Your task to perform on an android device: Open Google Maps Image 0: 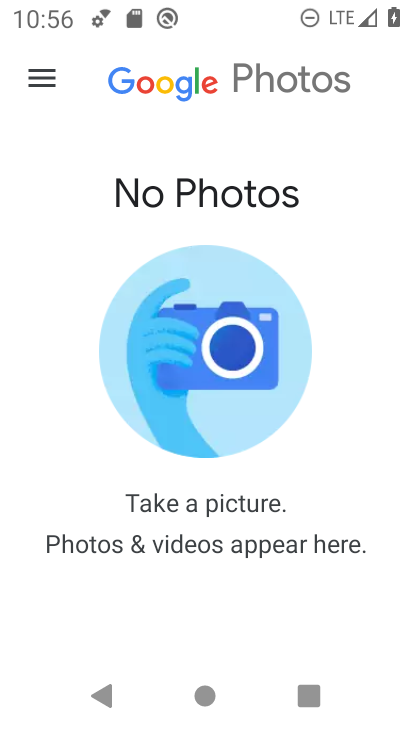
Step 0: press home button
Your task to perform on an android device: Open Google Maps Image 1: 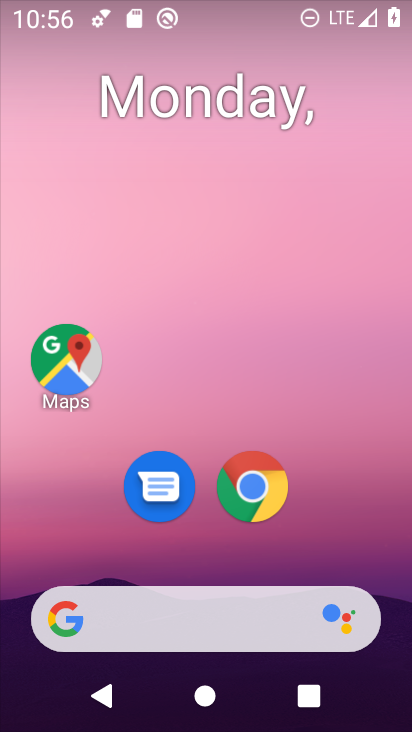
Step 1: click (61, 367)
Your task to perform on an android device: Open Google Maps Image 2: 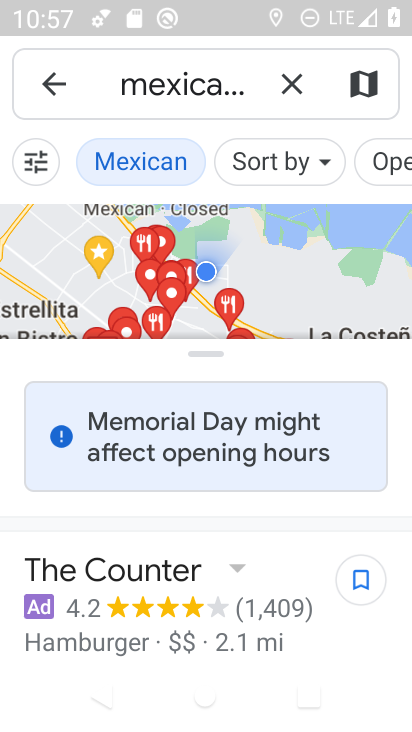
Step 2: click (47, 86)
Your task to perform on an android device: Open Google Maps Image 3: 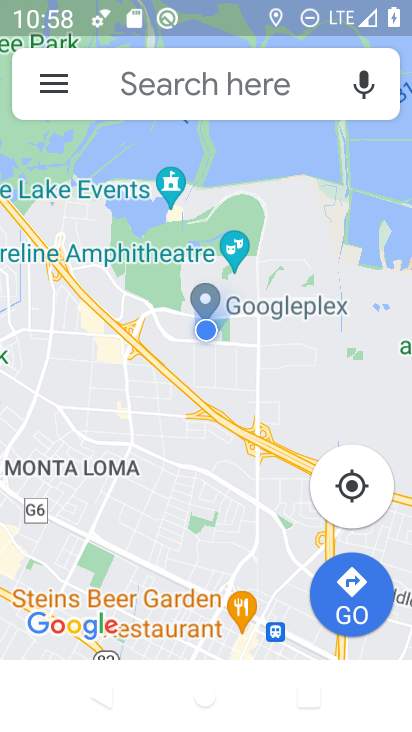
Step 3: task complete